Your task to perform on an android device: Search for pizza restaurants on Maps Image 0: 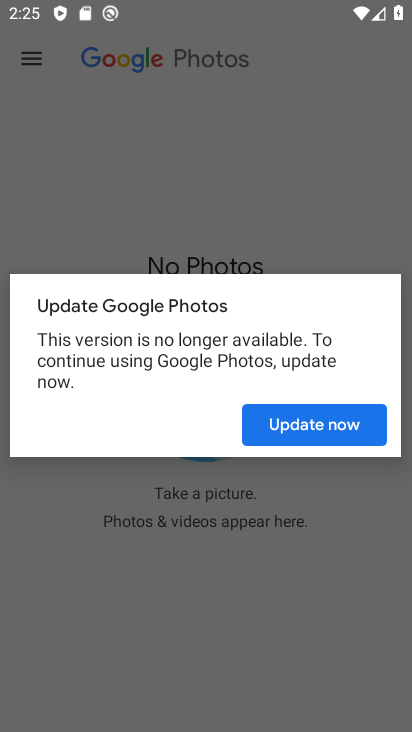
Step 0: press home button
Your task to perform on an android device: Search for pizza restaurants on Maps Image 1: 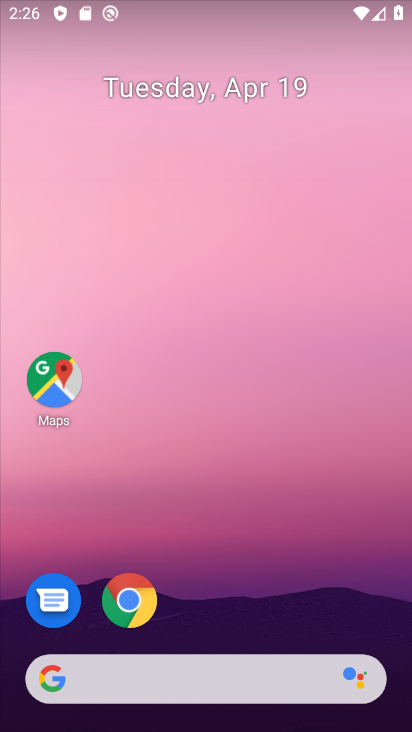
Step 1: drag from (294, 563) to (289, 64)
Your task to perform on an android device: Search for pizza restaurants on Maps Image 2: 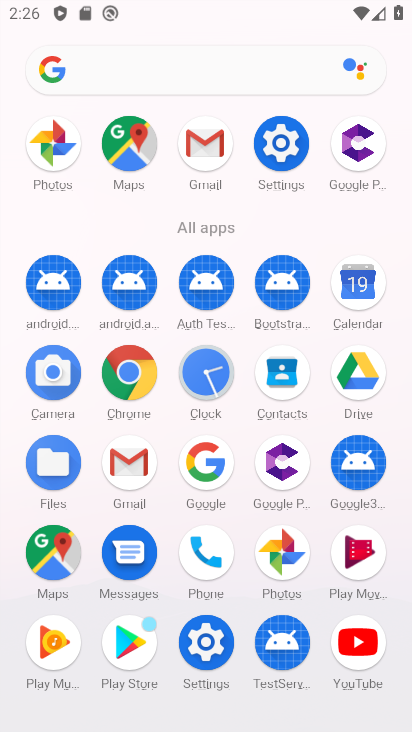
Step 2: click (130, 159)
Your task to perform on an android device: Search for pizza restaurants on Maps Image 3: 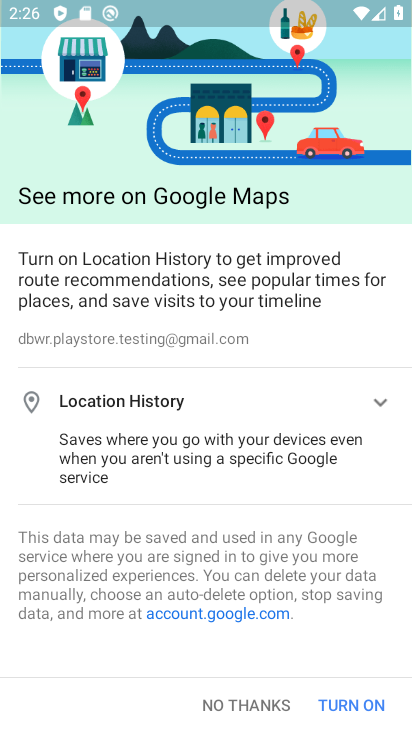
Step 3: click (249, 705)
Your task to perform on an android device: Search for pizza restaurants on Maps Image 4: 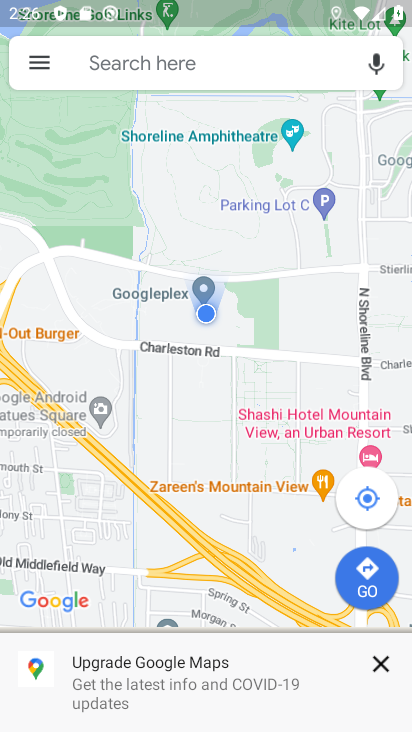
Step 4: click (151, 58)
Your task to perform on an android device: Search for pizza restaurants on Maps Image 5: 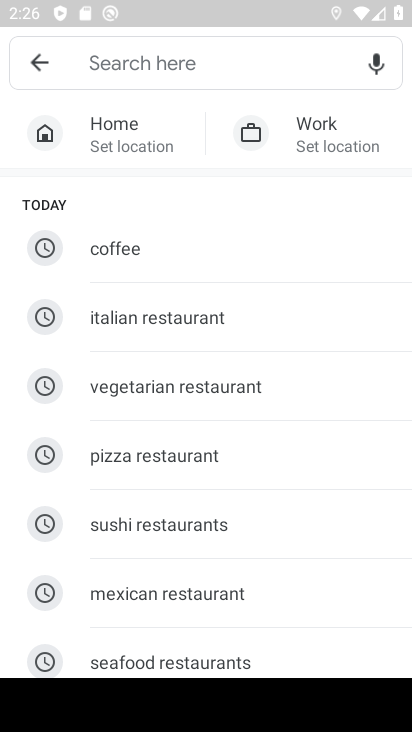
Step 5: type "pizza restaurants "
Your task to perform on an android device: Search for pizza restaurants on Maps Image 6: 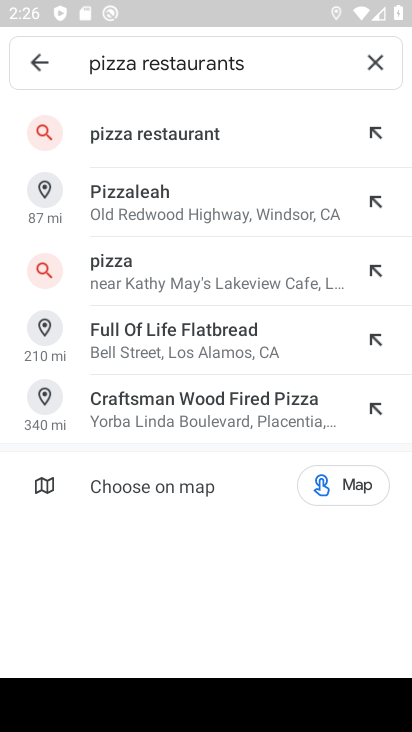
Step 6: click (209, 134)
Your task to perform on an android device: Search for pizza restaurants on Maps Image 7: 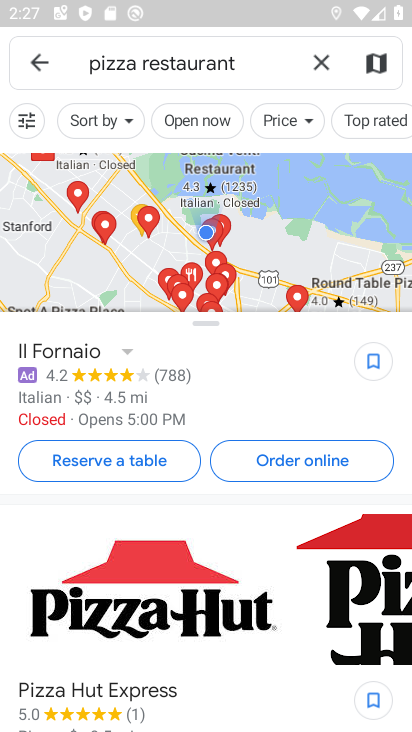
Step 7: task complete